Your task to perform on an android device: When is my next appointment? Image 0: 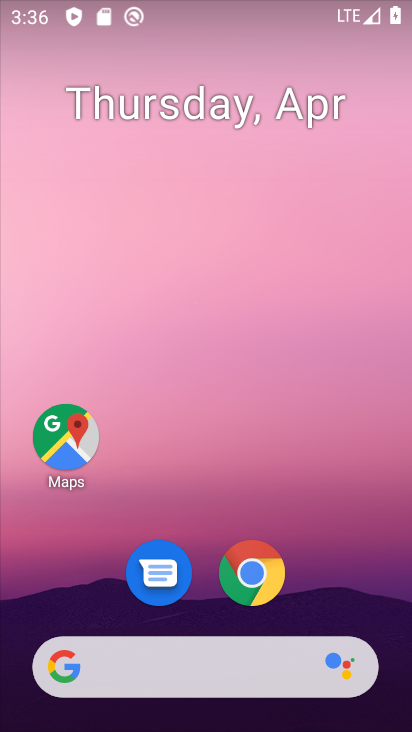
Step 0: drag from (364, 608) to (287, 75)
Your task to perform on an android device: When is my next appointment? Image 1: 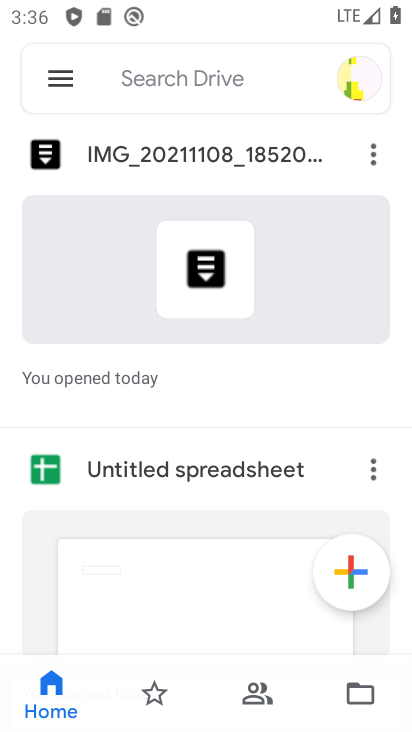
Step 1: press home button
Your task to perform on an android device: When is my next appointment? Image 2: 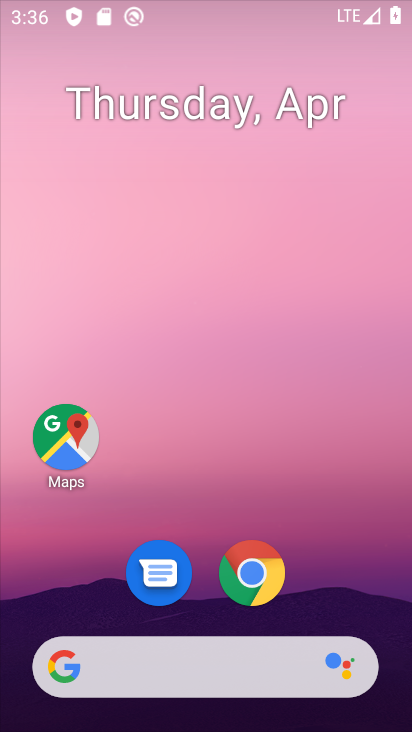
Step 2: drag from (333, 609) to (304, 50)
Your task to perform on an android device: When is my next appointment? Image 3: 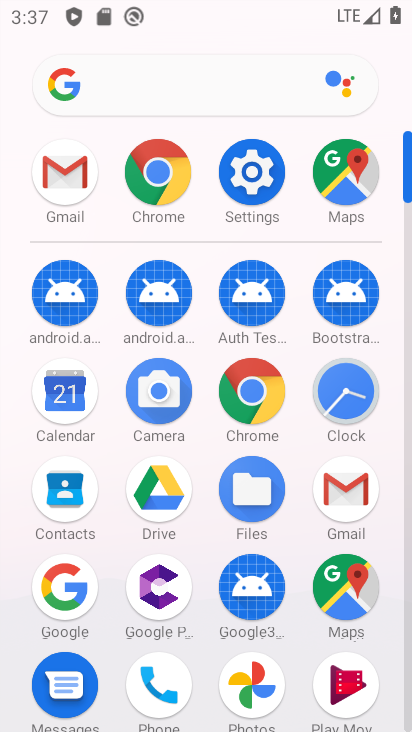
Step 3: click (76, 392)
Your task to perform on an android device: When is my next appointment? Image 4: 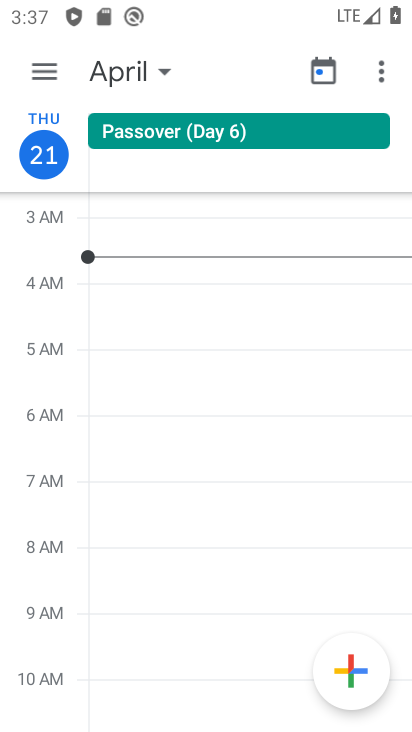
Step 4: task complete